Your task to perform on an android device: Open CNN.com Image 0: 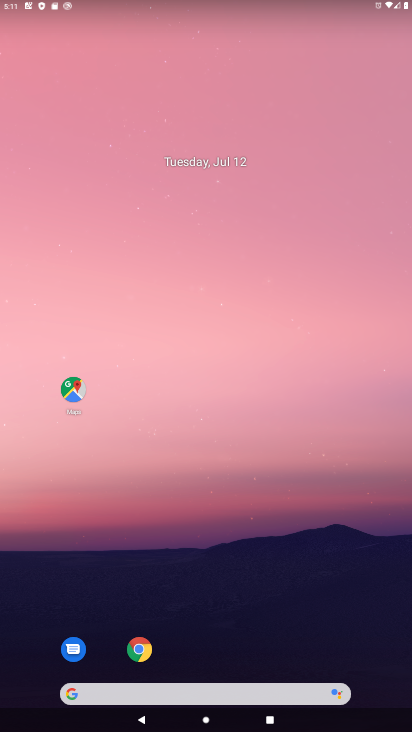
Step 0: click (137, 647)
Your task to perform on an android device: Open CNN.com Image 1: 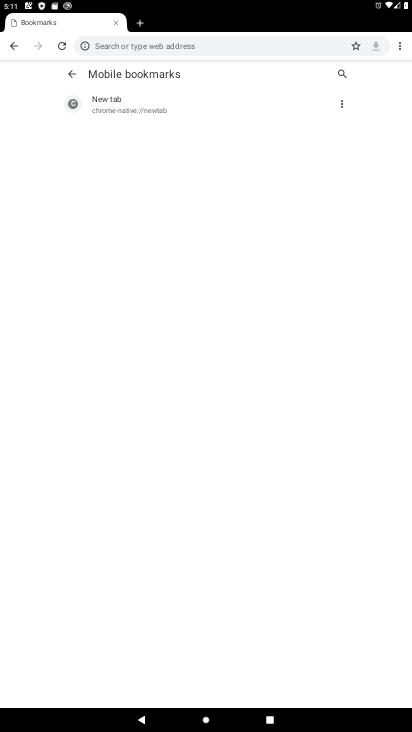
Step 1: click (171, 46)
Your task to perform on an android device: Open CNN.com Image 2: 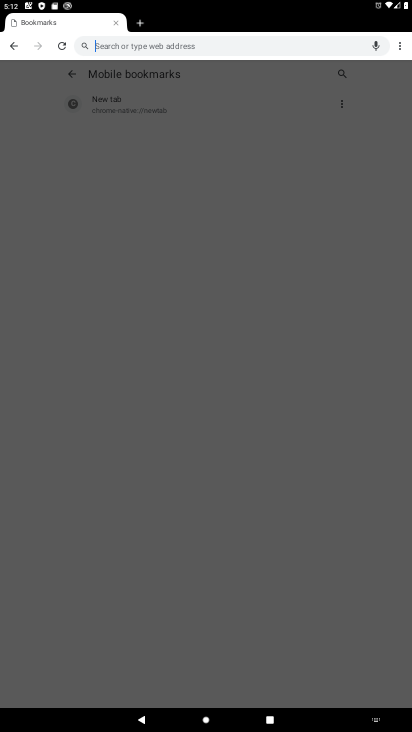
Step 2: type "CNN.com"
Your task to perform on an android device: Open CNN.com Image 3: 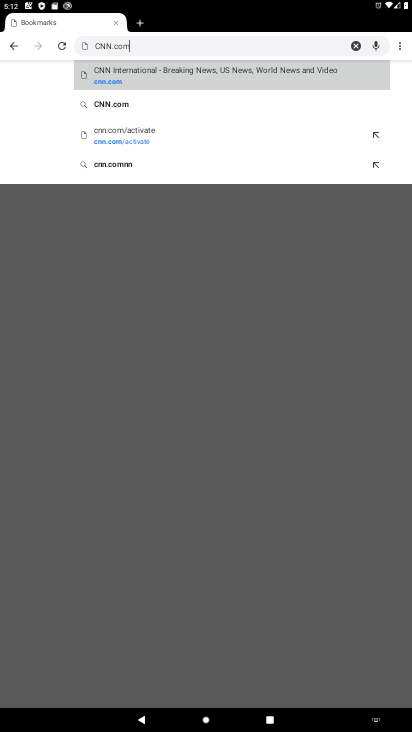
Step 3: click (118, 105)
Your task to perform on an android device: Open CNN.com Image 4: 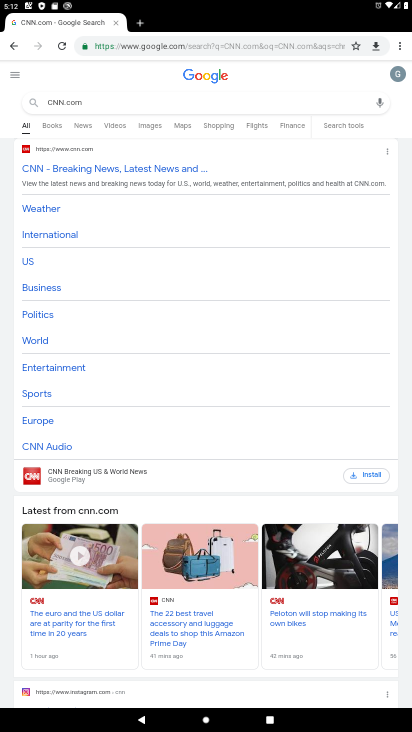
Step 4: click (108, 168)
Your task to perform on an android device: Open CNN.com Image 5: 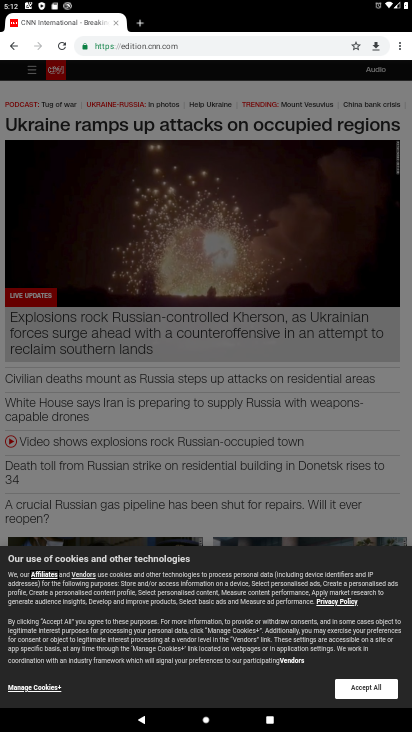
Step 5: task complete